Your task to perform on an android device: Open the calendar app, open the side menu, and click the "Day" option Image 0: 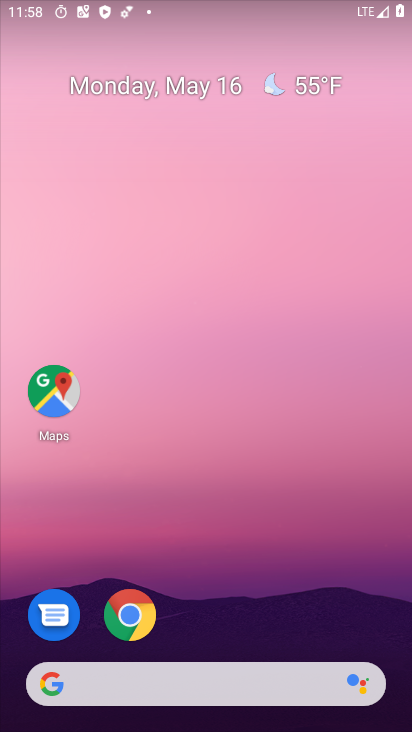
Step 0: drag from (220, 523) to (193, 7)
Your task to perform on an android device: Open the calendar app, open the side menu, and click the "Day" option Image 1: 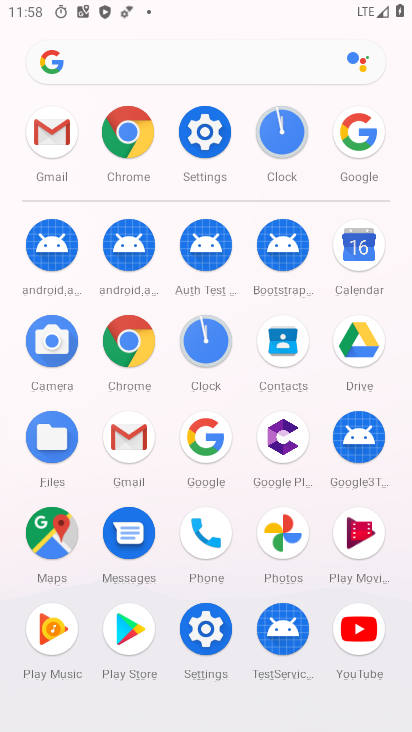
Step 1: drag from (256, 461) to (204, 171)
Your task to perform on an android device: Open the calendar app, open the side menu, and click the "Day" option Image 2: 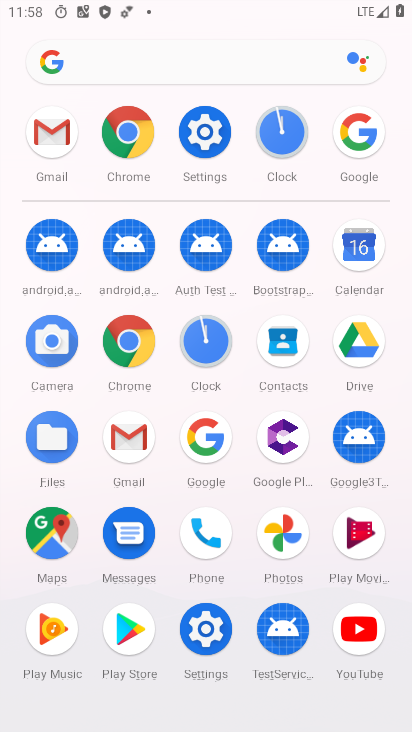
Step 2: click (361, 250)
Your task to perform on an android device: Open the calendar app, open the side menu, and click the "Day" option Image 3: 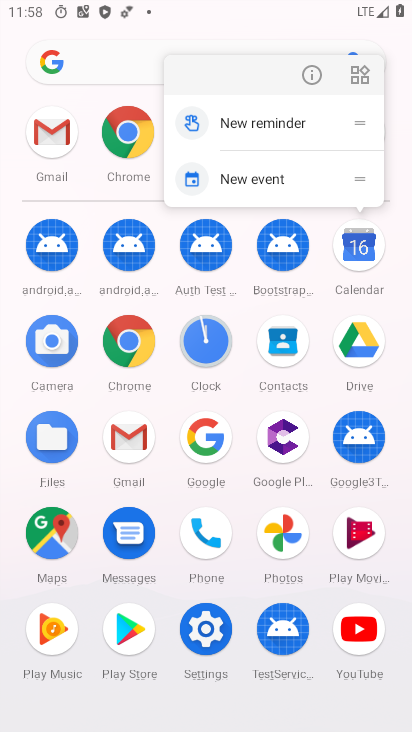
Step 3: click (358, 259)
Your task to perform on an android device: Open the calendar app, open the side menu, and click the "Day" option Image 4: 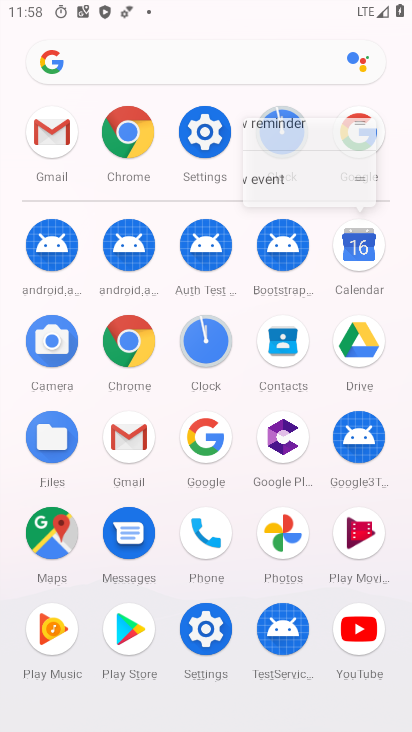
Step 4: click (358, 259)
Your task to perform on an android device: Open the calendar app, open the side menu, and click the "Day" option Image 5: 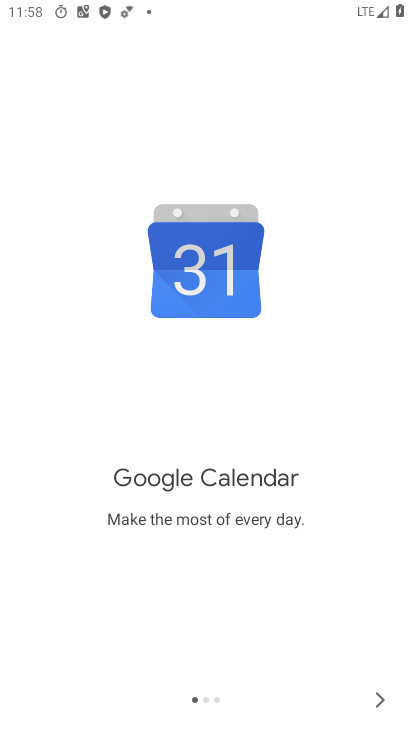
Step 5: click (378, 714)
Your task to perform on an android device: Open the calendar app, open the side menu, and click the "Day" option Image 6: 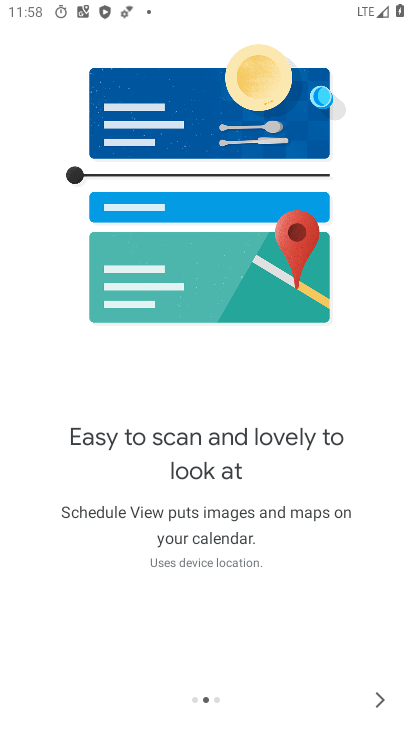
Step 6: click (378, 714)
Your task to perform on an android device: Open the calendar app, open the side menu, and click the "Day" option Image 7: 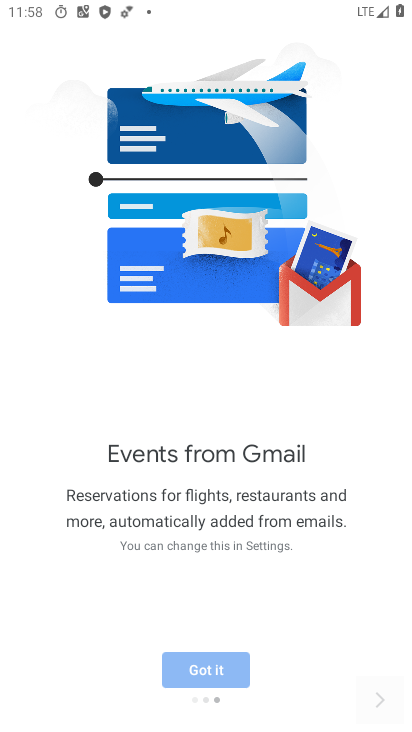
Step 7: click (378, 714)
Your task to perform on an android device: Open the calendar app, open the side menu, and click the "Day" option Image 8: 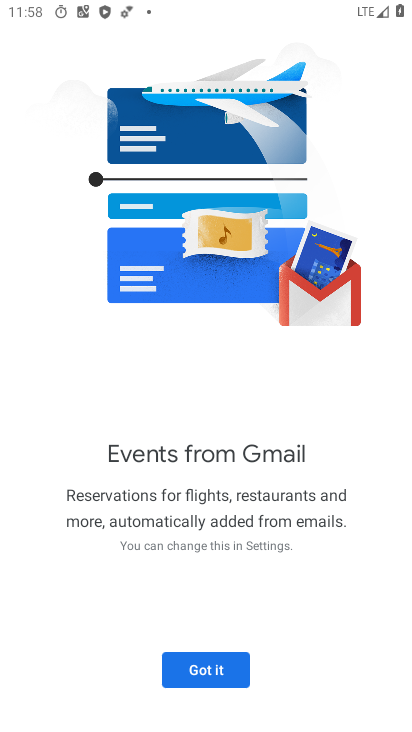
Step 8: click (185, 682)
Your task to perform on an android device: Open the calendar app, open the side menu, and click the "Day" option Image 9: 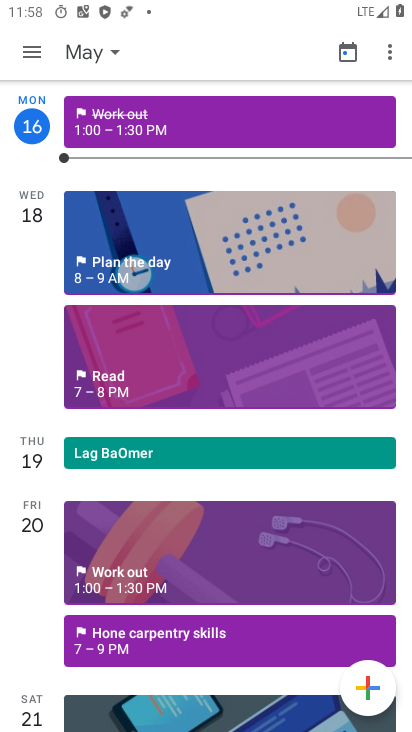
Step 9: click (20, 54)
Your task to perform on an android device: Open the calendar app, open the side menu, and click the "Day" option Image 10: 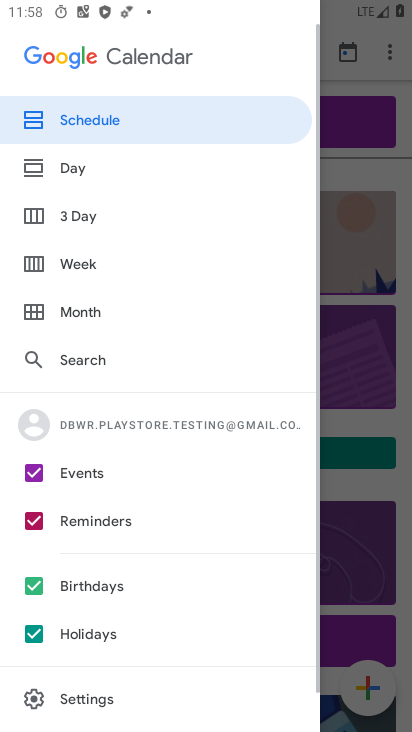
Step 10: click (59, 180)
Your task to perform on an android device: Open the calendar app, open the side menu, and click the "Day" option Image 11: 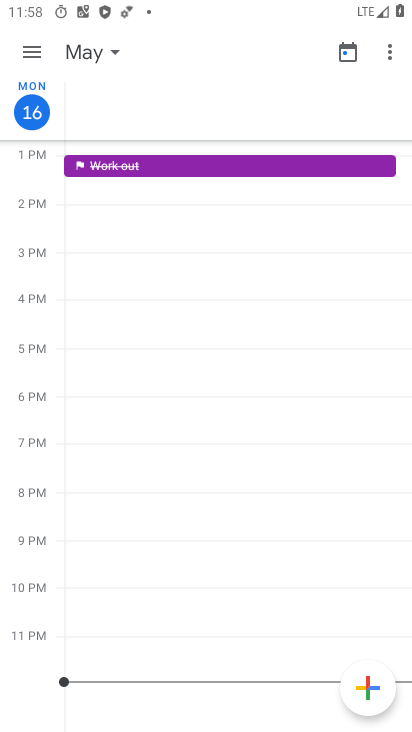
Step 11: task complete